Your task to perform on an android device: Open Yahoo.com Image 0: 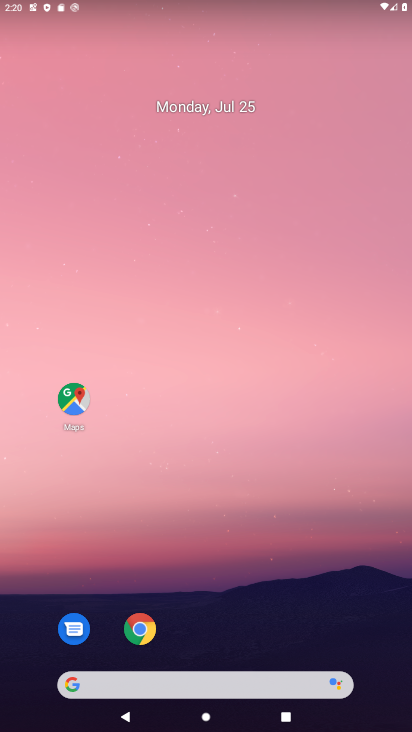
Step 0: click (146, 629)
Your task to perform on an android device: Open Yahoo.com Image 1: 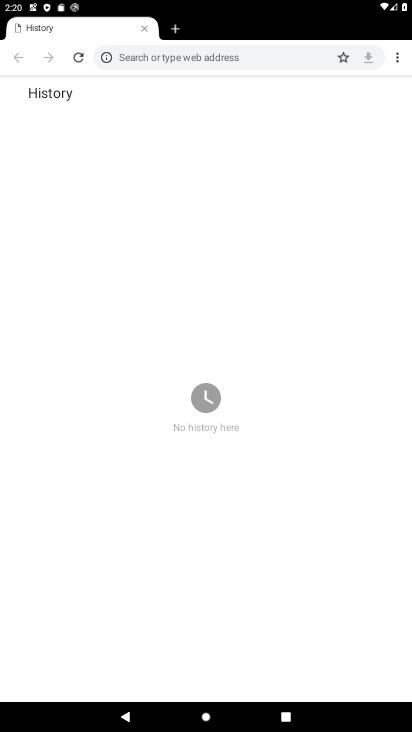
Step 1: click (233, 52)
Your task to perform on an android device: Open Yahoo.com Image 2: 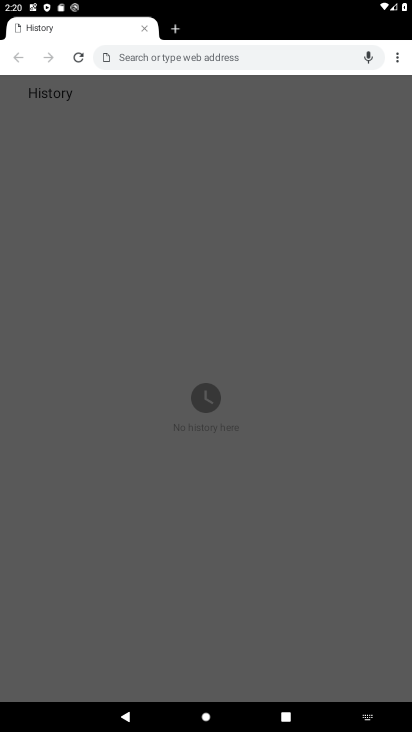
Step 2: type "yahoo.com"
Your task to perform on an android device: Open Yahoo.com Image 3: 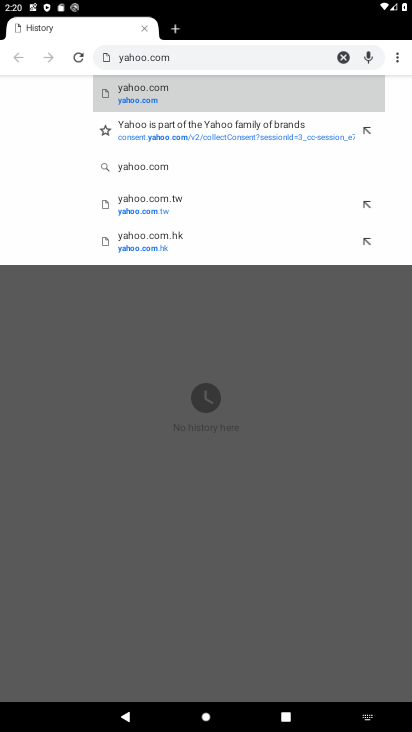
Step 3: click (149, 92)
Your task to perform on an android device: Open Yahoo.com Image 4: 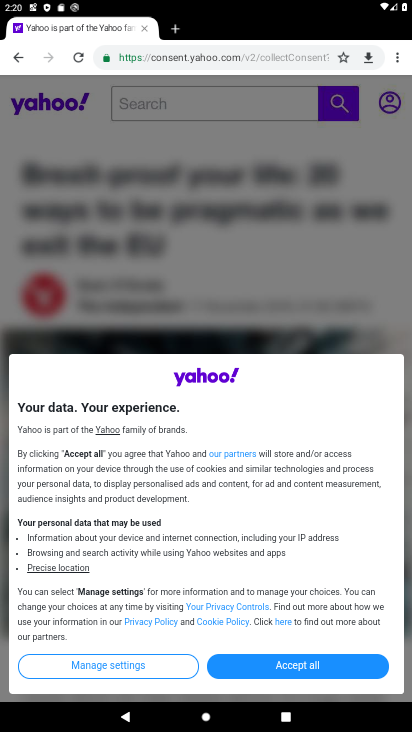
Step 4: task complete